Your task to perform on an android device: Open Youtube and go to the subscriptions tab Image 0: 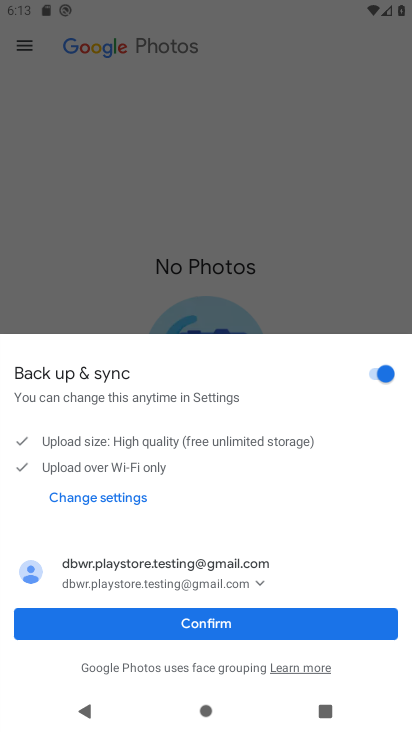
Step 0: press home button
Your task to perform on an android device: Open Youtube and go to the subscriptions tab Image 1: 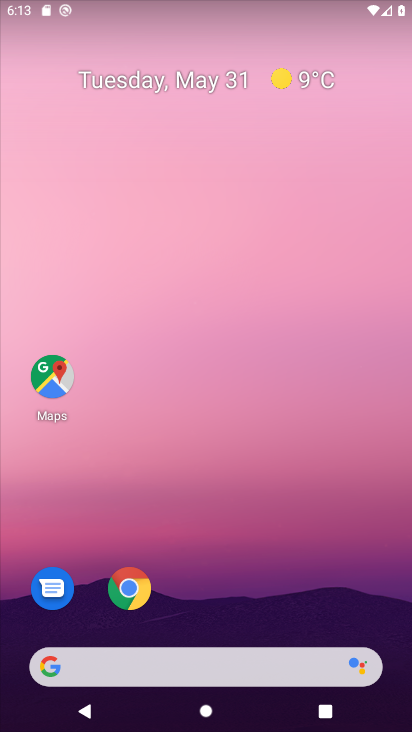
Step 1: drag from (230, 611) to (226, 283)
Your task to perform on an android device: Open Youtube and go to the subscriptions tab Image 2: 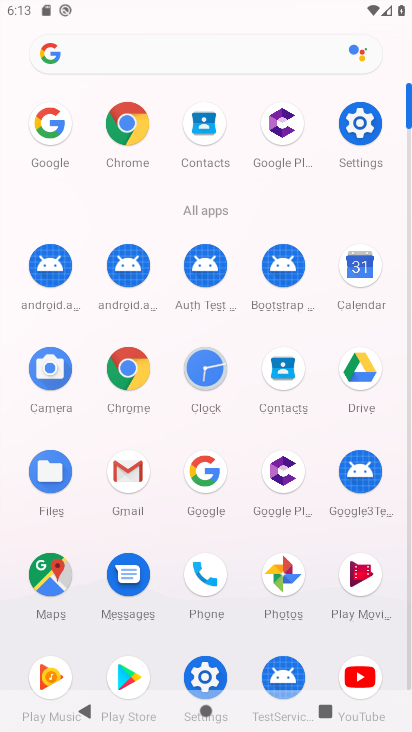
Step 2: click (358, 668)
Your task to perform on an android device: Open Youtube and go to the subscriptions tab Image 3: 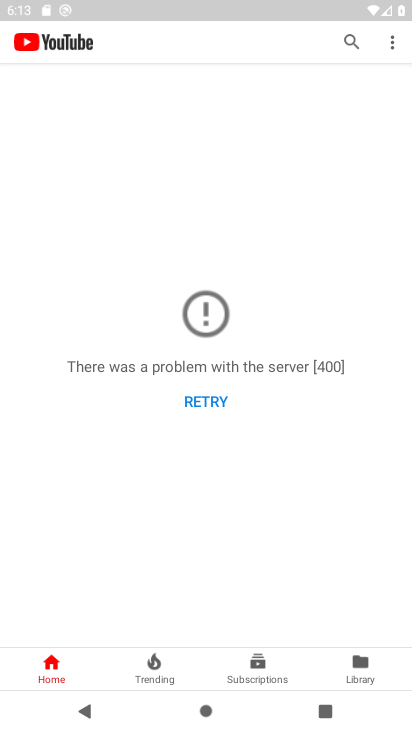
Step 3: click (255, 673)
Your task to perform on an android device: Open Youtube and go to the subscriptions tab Image 4: 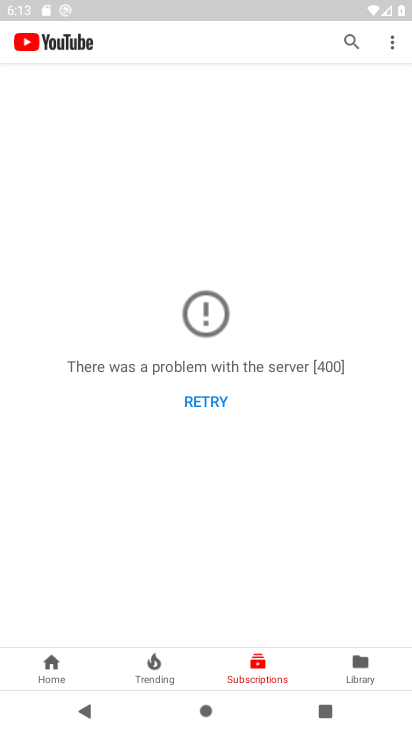
Step 4: task complete